Your task to perform on an android device: Show me the alarms in the clock app Image 0: 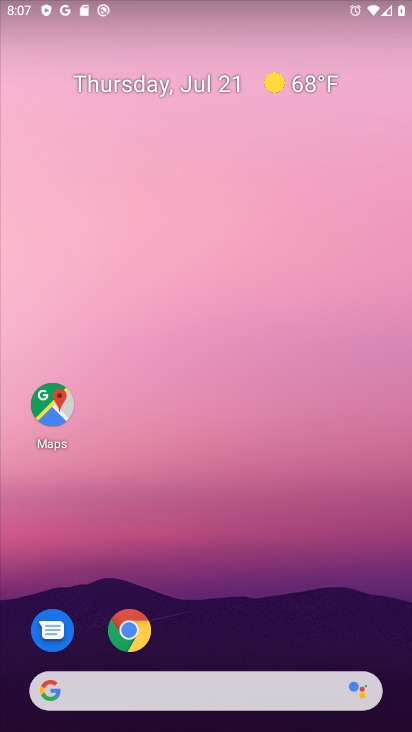
Step 0: drag from (307, 550) to (67, 23)
Your task to perform on an android device: Show me the alarms in the clock app Image 1: 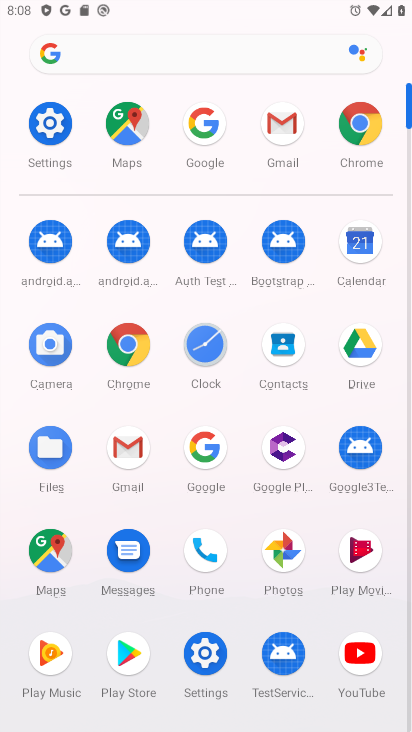
Step 1: click (213, 346)
Your task to perform on an android device: Show me the alarms in the clock app Image 2: 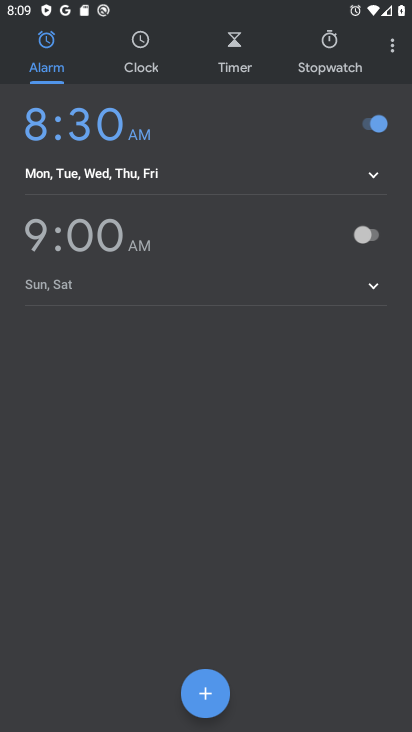
Step 2: task complete